Your task to perform on an android device: Go to Reddit.com Image 0: 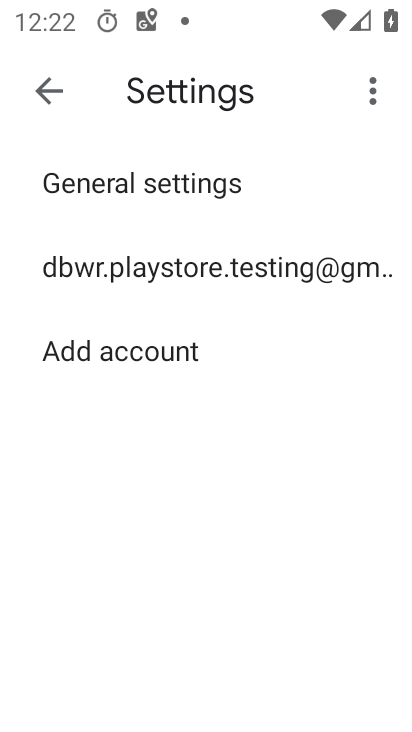
Step 0: press home button
Your task to perform on an android device: Go to Reddit.com Image 1: 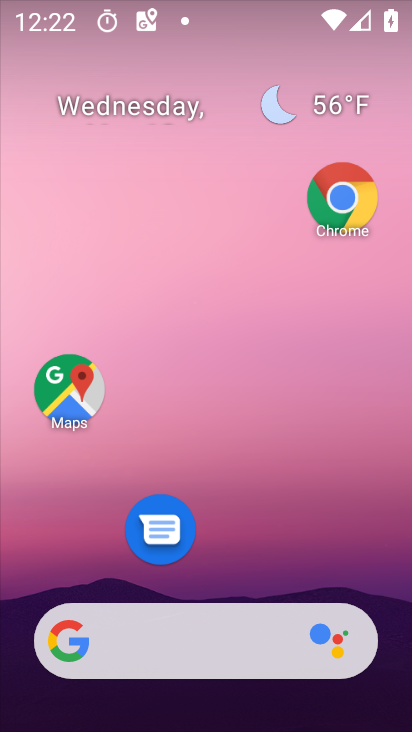
Step 1: click (177, 642)
Your task to perform on an android device: Go to Reddit.com Image 2: 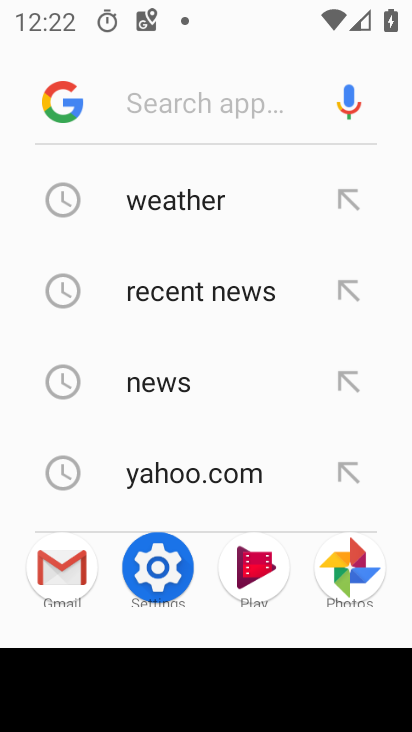
Step 2: type "reddit.com"
Your task to perform on an android device: Go to Reddit.com Image 3: 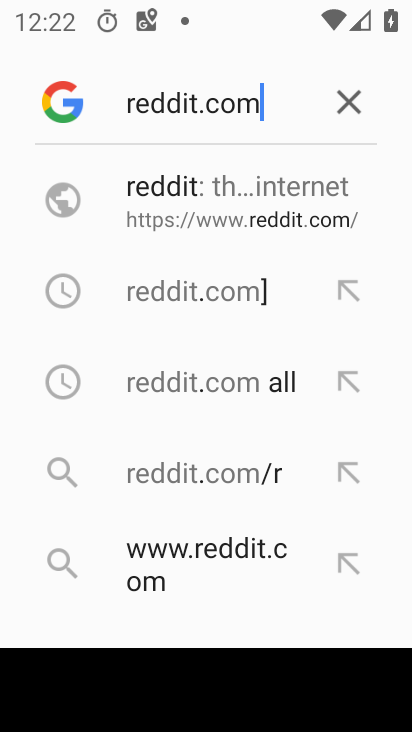
Step 3: click (221, 221)
Your task to perform on an android device: Go to Reddit.com Image 4: 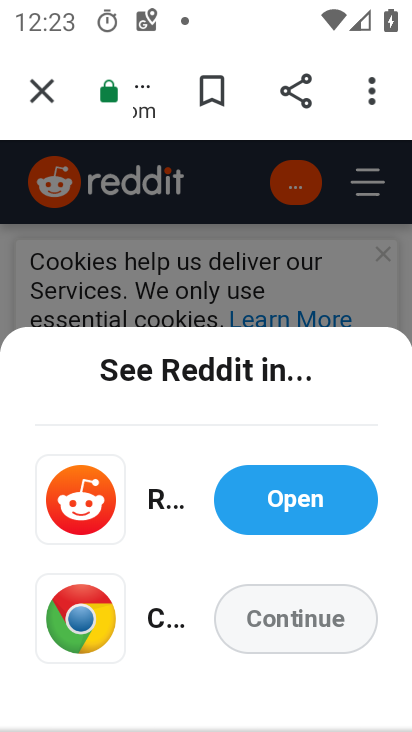
Step 4: task complete